Your task to perform on an android device: Open Yahoo.com Image 0: 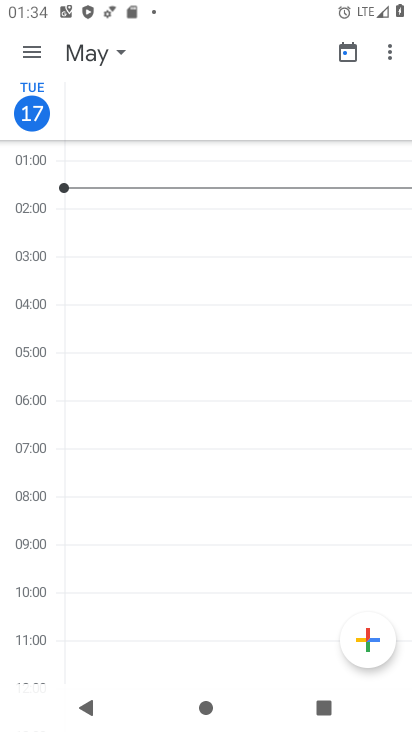
Step 0: press home button
Your task to perform on an android device: Open Yahoo.com Image 1: 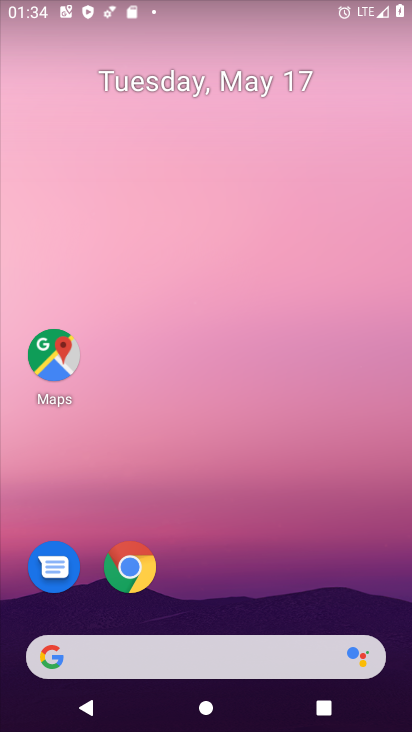
Step 1: click (124, 567)
Your task to perform on an android device: Open Yahoo.com Image 2: 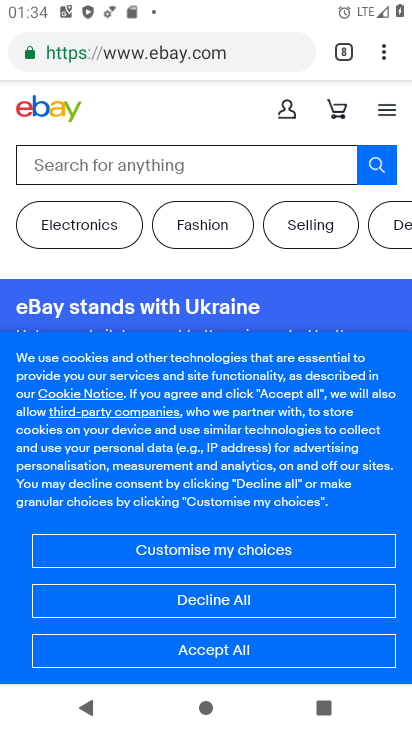
Step 2: click (382, 47)
Your task to perform on an android device: Open Yahoo.com Image 3: 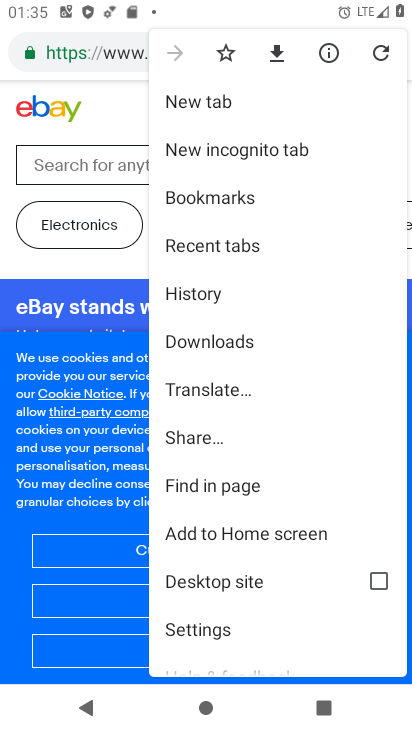
Step 3: click (225, 93)
Your task to perform on an android device: Open Yahoo.com Image 4: 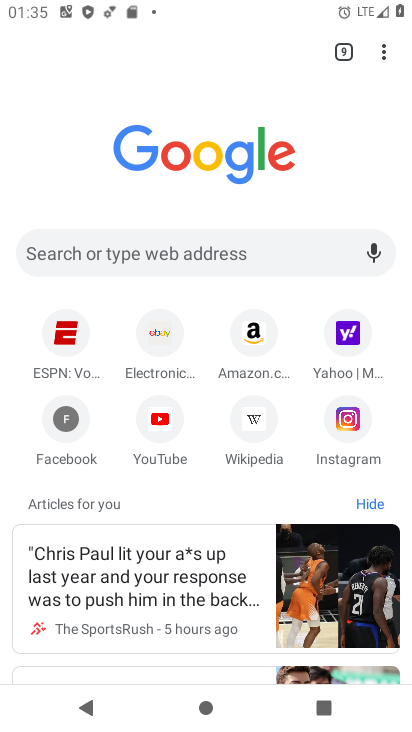
Step 4: click (348, 335)
Your task to perform on an android device: Open Yahoo.com Image 5: 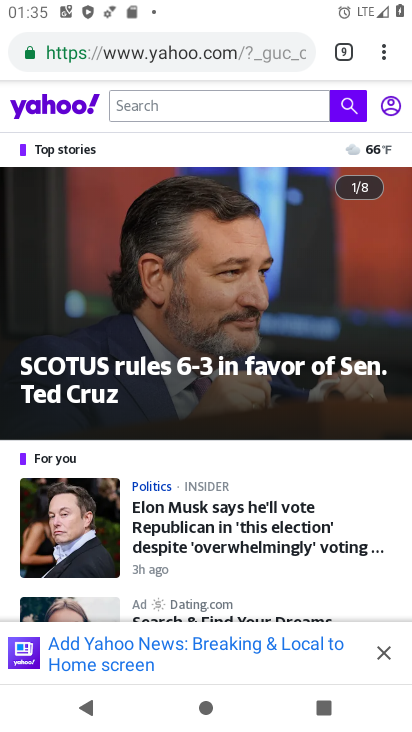
Step 5: task complete